Your task to perform on an android device: delete browsing data in the chrome app Image 0: 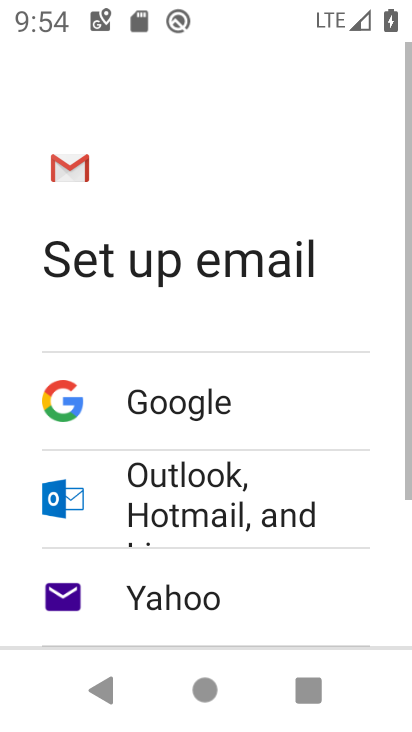
Step 0: press home button
Your task to perform on an android device: delete browsing data in the chrome app Image 1: 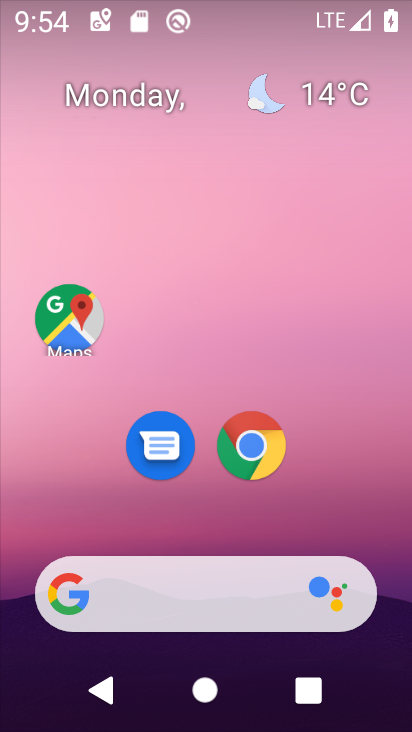
Step 1: click (249, 442)
Your task to perform on an android device: delete browsing data in the chrome app Image 2: 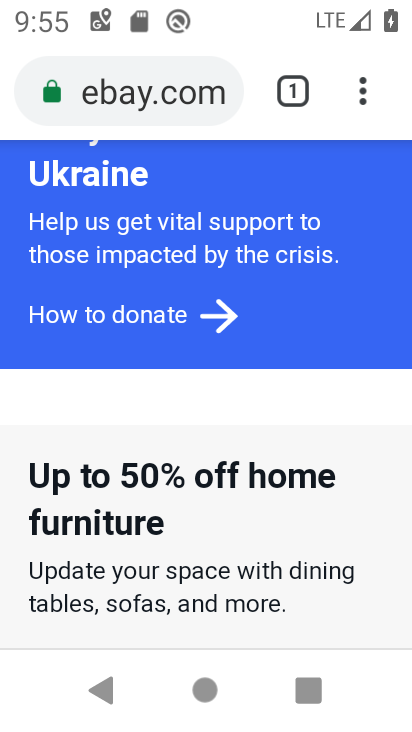
Step 2: drag from (219, 592) to (243, 128)
Your task to perform on an android device: delete browsing data in the chrome app Image 3: 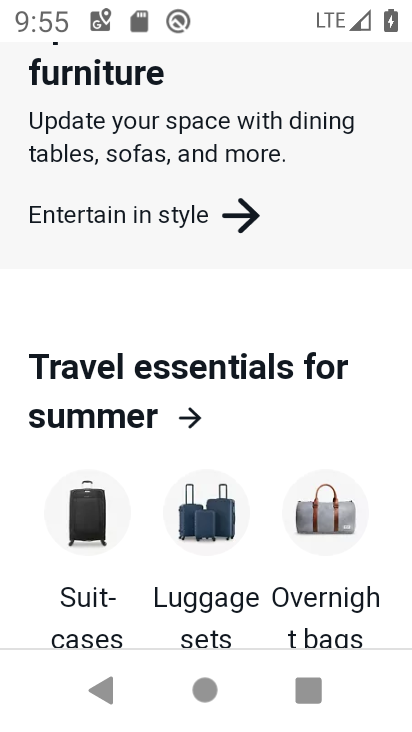
Step 3: drag from (243, 115) to (224, 692)
Your task to perform on an android device: delete browsing data in the chrome app Image 4: 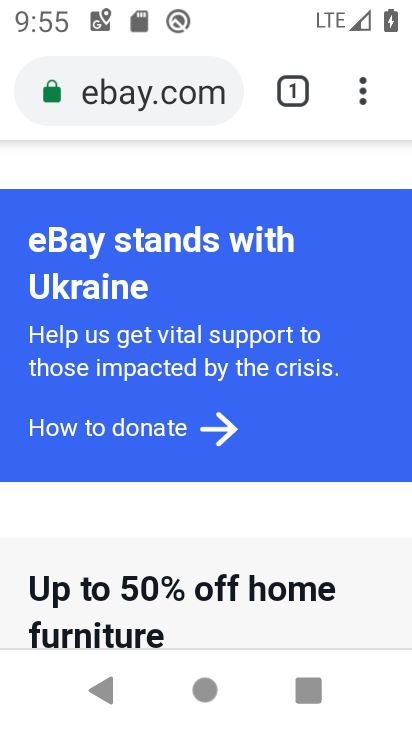
Step 4: click (373, 87)
Your task to perform on an android device: delete browsing data in the chrome app Image 5: 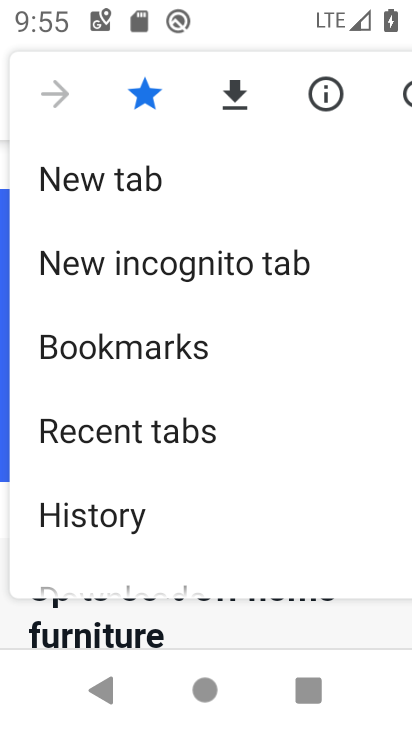
Step 5: click (165, 514)
Your task to perform on an android device: delete browsing data in the chrome app Image 6: 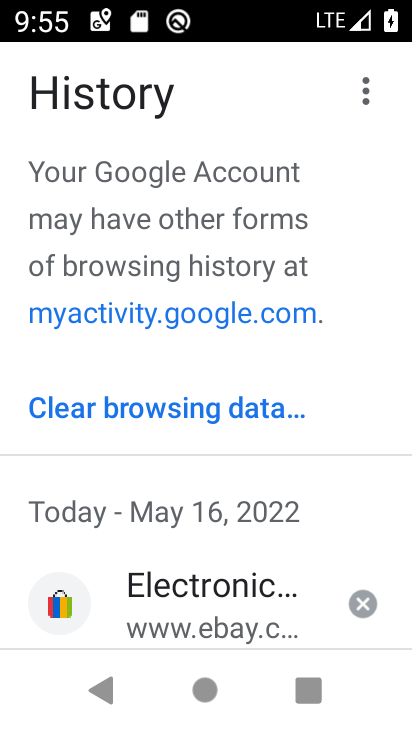
Step 6: click (160, 402)
Your task to perform on an android device: delete browsing data in the chrome app Image 7: 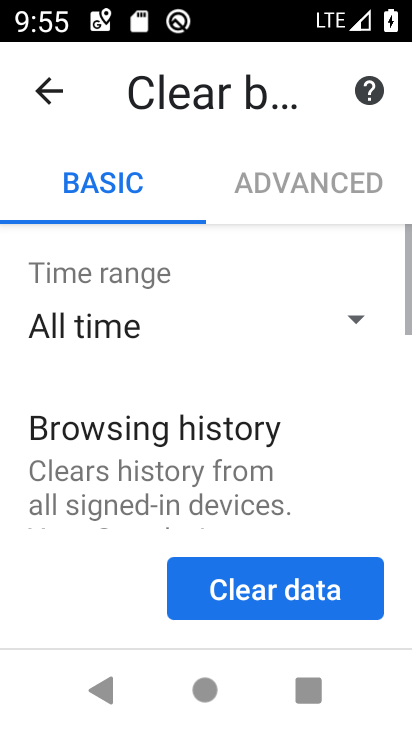
Step 7: drag from (239, 483) to (248, 183)
Your task to perform on an android device: delete browsing data in the chrome app Image 8: 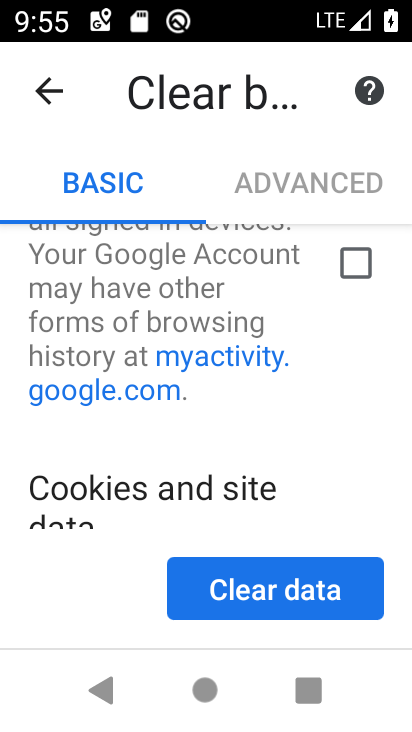
Step 8: click (343, 256)
Your task to perform on an android device: delete browsing data in the chrome app Image 9: 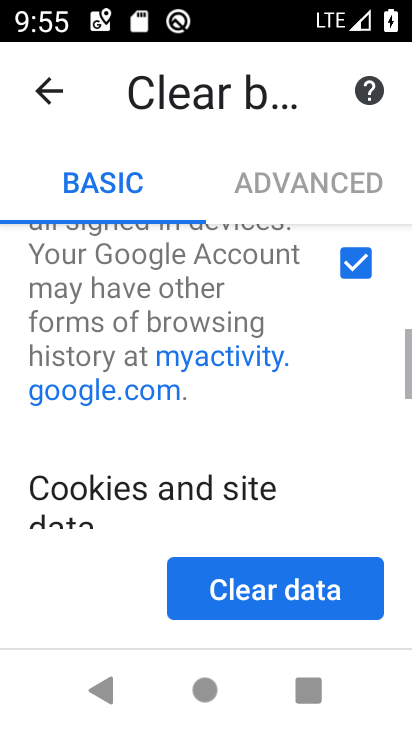
Step 9: drag from (233, 276) to (215, 589)
Your task to perform on an android device: delete browsing data in the chrome app Image 10: 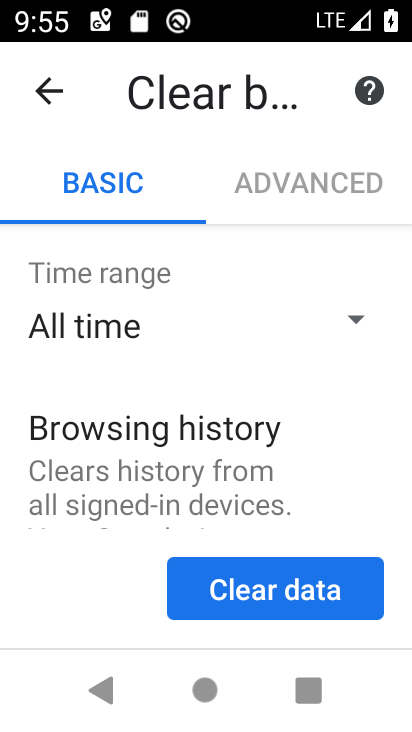
Step 10: drag from (213, 487) to (234, 153)
Your task to perform on an android device: delete browsing data in the chrome app Image 11: 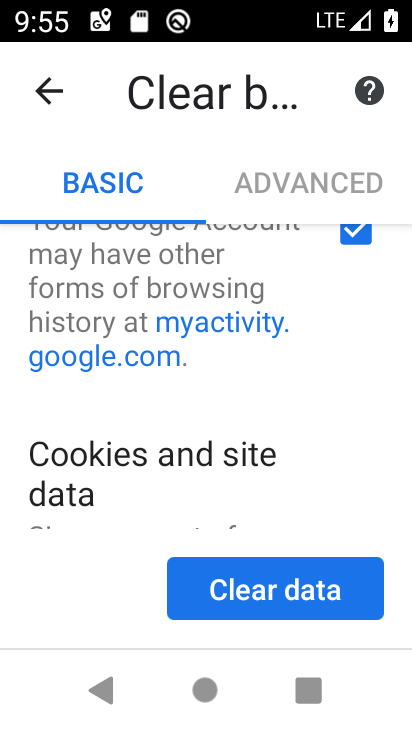
Step 11: drag from (186, 470) to (210, 218)
Your task to perform on an android device: delete browsing data in the chrome app Image 12: 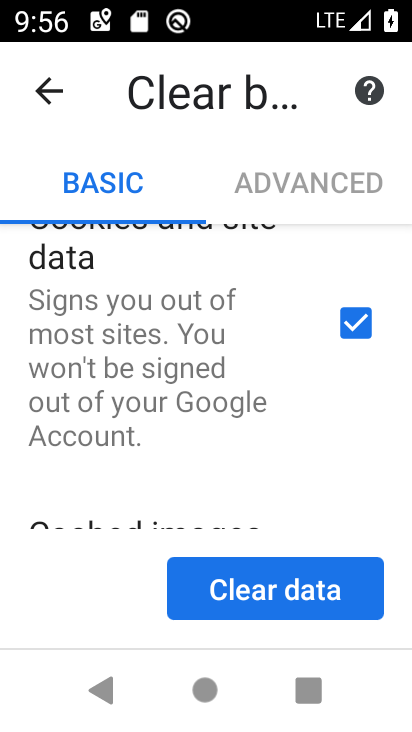
Step 12: drag from (232, 493) to (244, 229)
Your task to perform on an android device: delete browsing data in the chrome app Image 13: 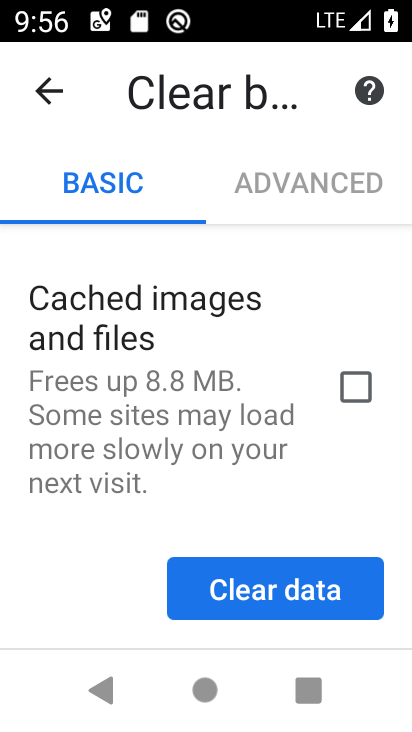
Step 13: click (363, 381)
Your task to perform on an android device: delete browsing data in the chrome app Image 14: 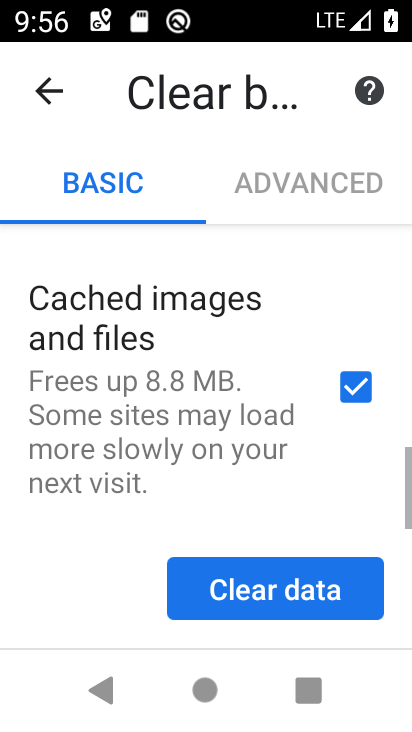
Step 14: click (290, 595)
Your task to perform on an android device: delete browsing data in the chrome app Image 15: 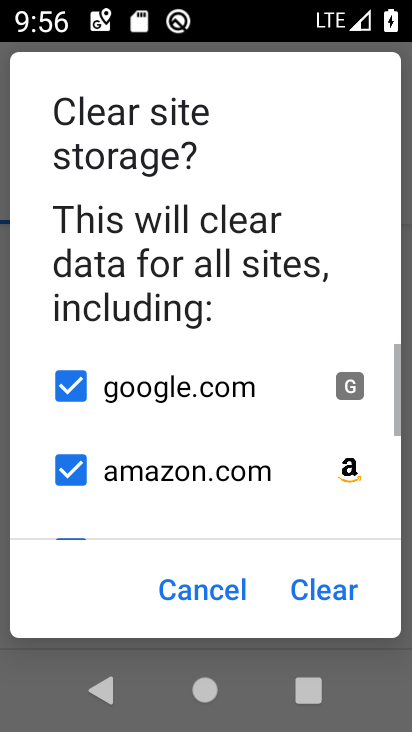
Step 15: click (318, 584)
Your task to perform on an android device: delete browsing data in the chrome app Image 16: 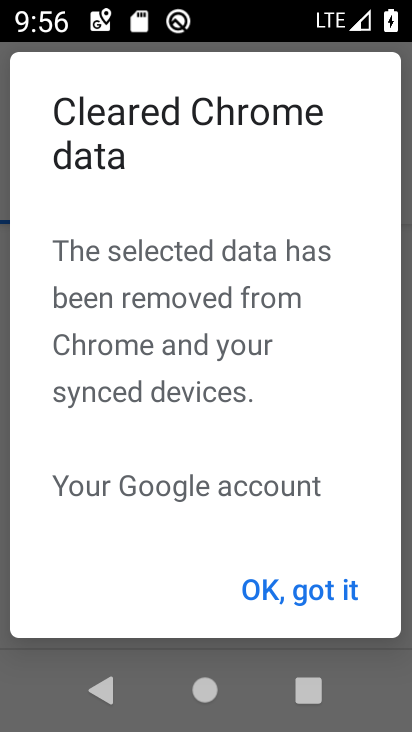
Step 16: click (295, 598)
Your task to perform on an android device: delete browsing data in the chrome app Image 17: 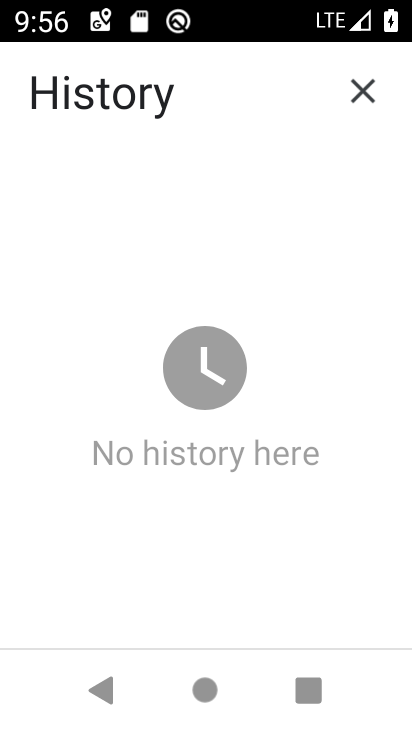
Step 17: task complete